Your task to perform on an android device: change notifications settings Image 0: 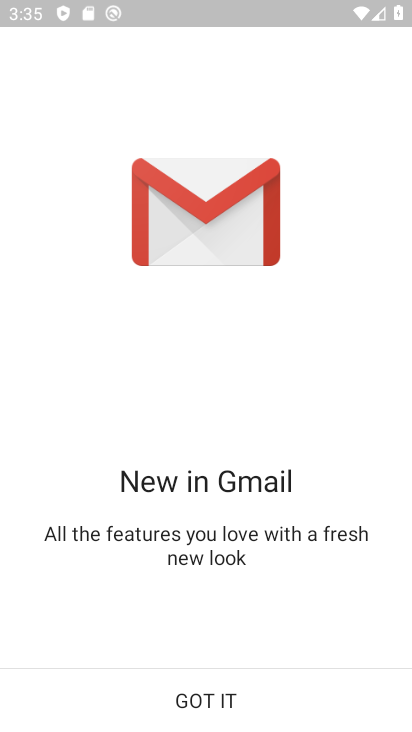
Step 0: click (246, 698)
Your task to perform on an android device: change notifications settings Image 1: 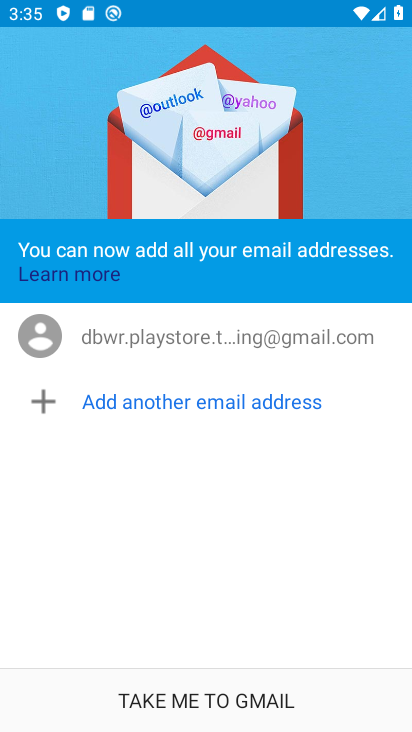
Step 1: press home button
Your task to perform on an android device: change notifications settings Image 2: 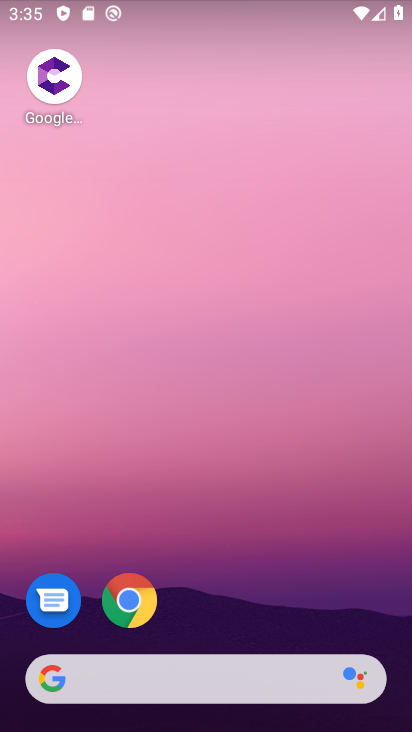
Step 2: drag from (302, 662) to (352, 10)
Your task to perform on an android device: change notifications settings Image 3: 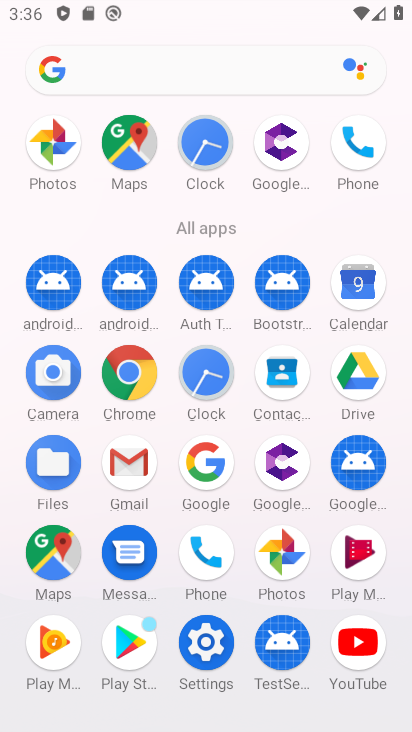
Step 3: click (213, 649)
Your task to perform on an android device: change notifications settings Image 4: 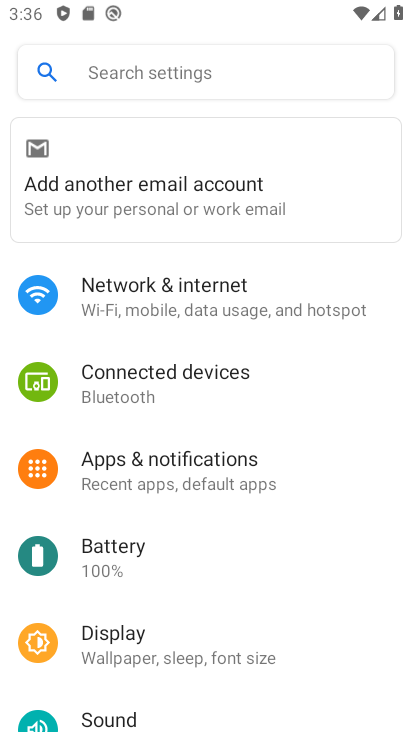
Step 4: click (255, 473)
Your task to perform on an android device: change notifications settings Image 5: 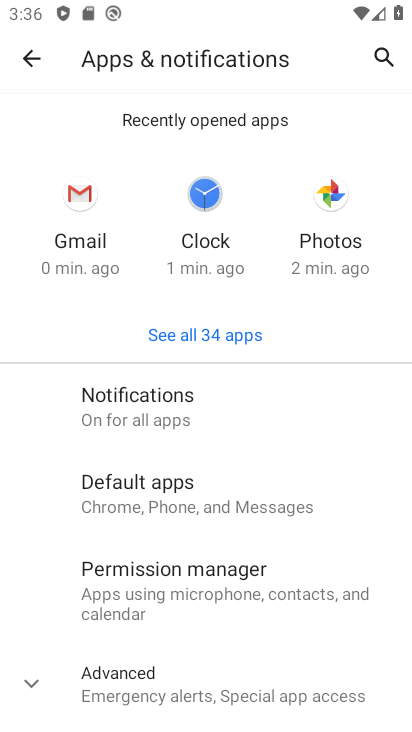
Step 5: click (201, 404)
Your task to perform on an android device: change notifications settings Image 6: 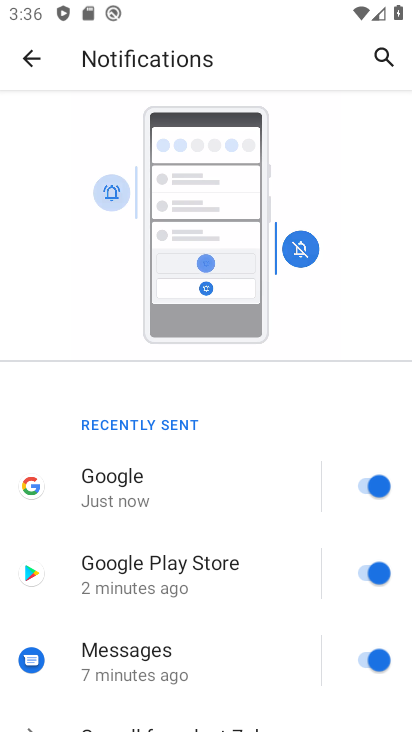
Step 6: task complete